Your task to perform on an android device: Open Maps and search for coffee Image 0: 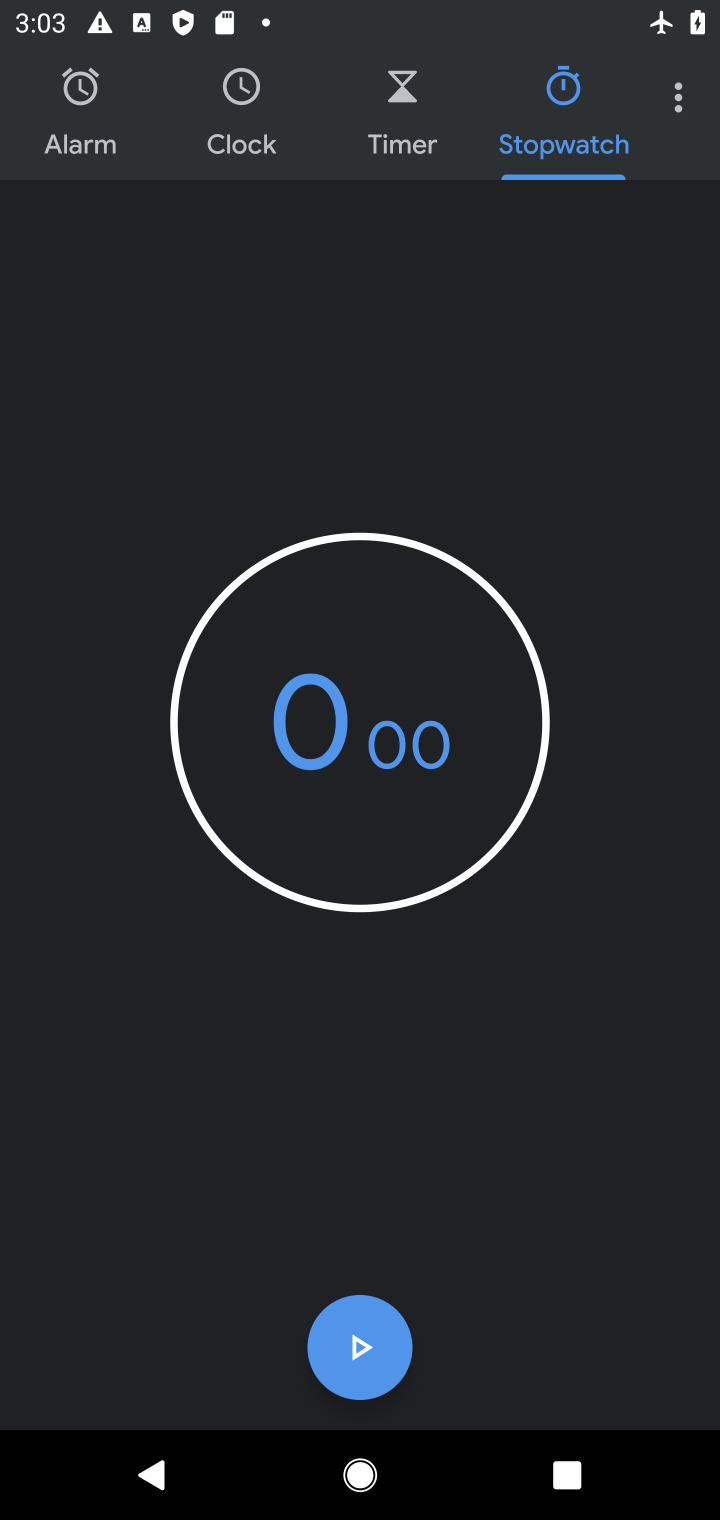
Step 0: press home button
Your task to perform on an android device: Open Maps and search for coffee Image 1: 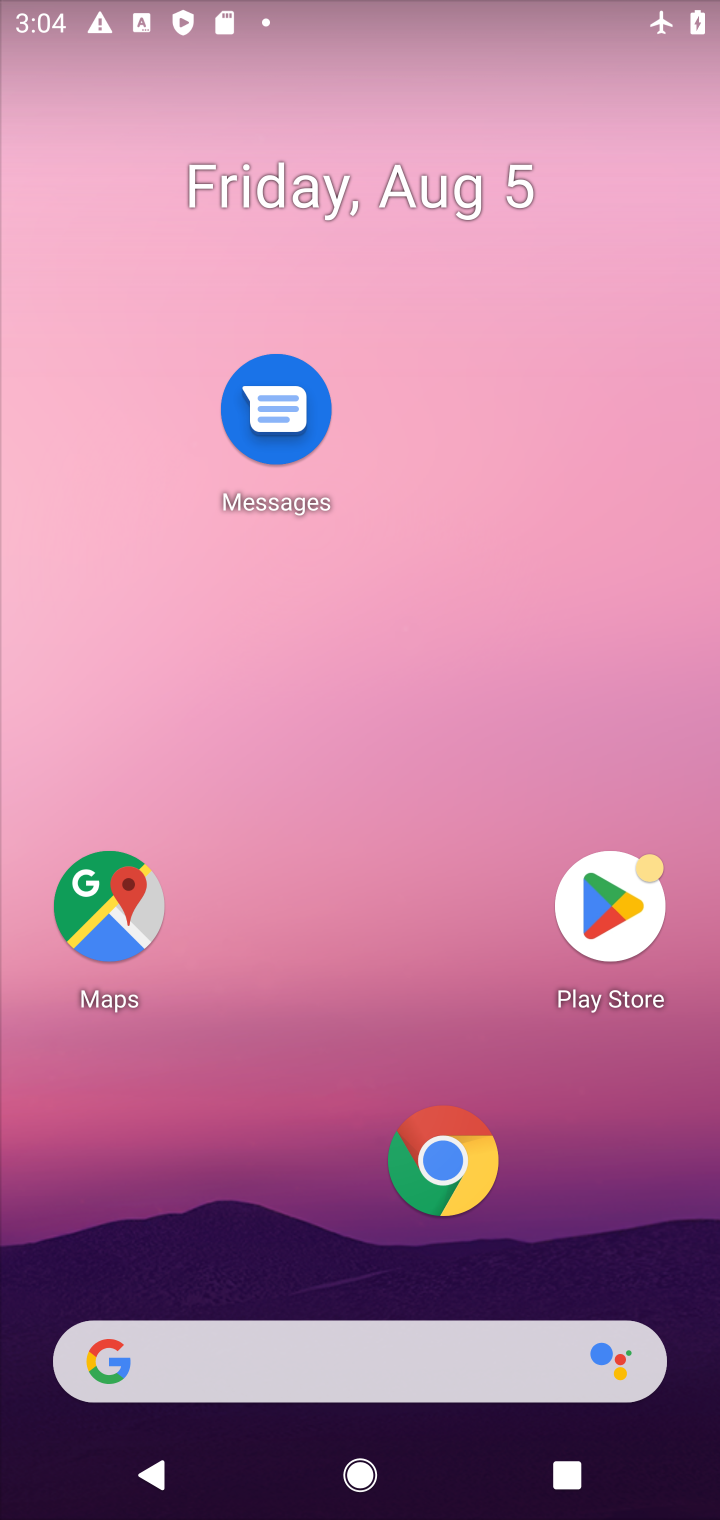
Step 1: click (154, 905)
Your task to perform on an android device: Open Maps and search for coffee Image 2: 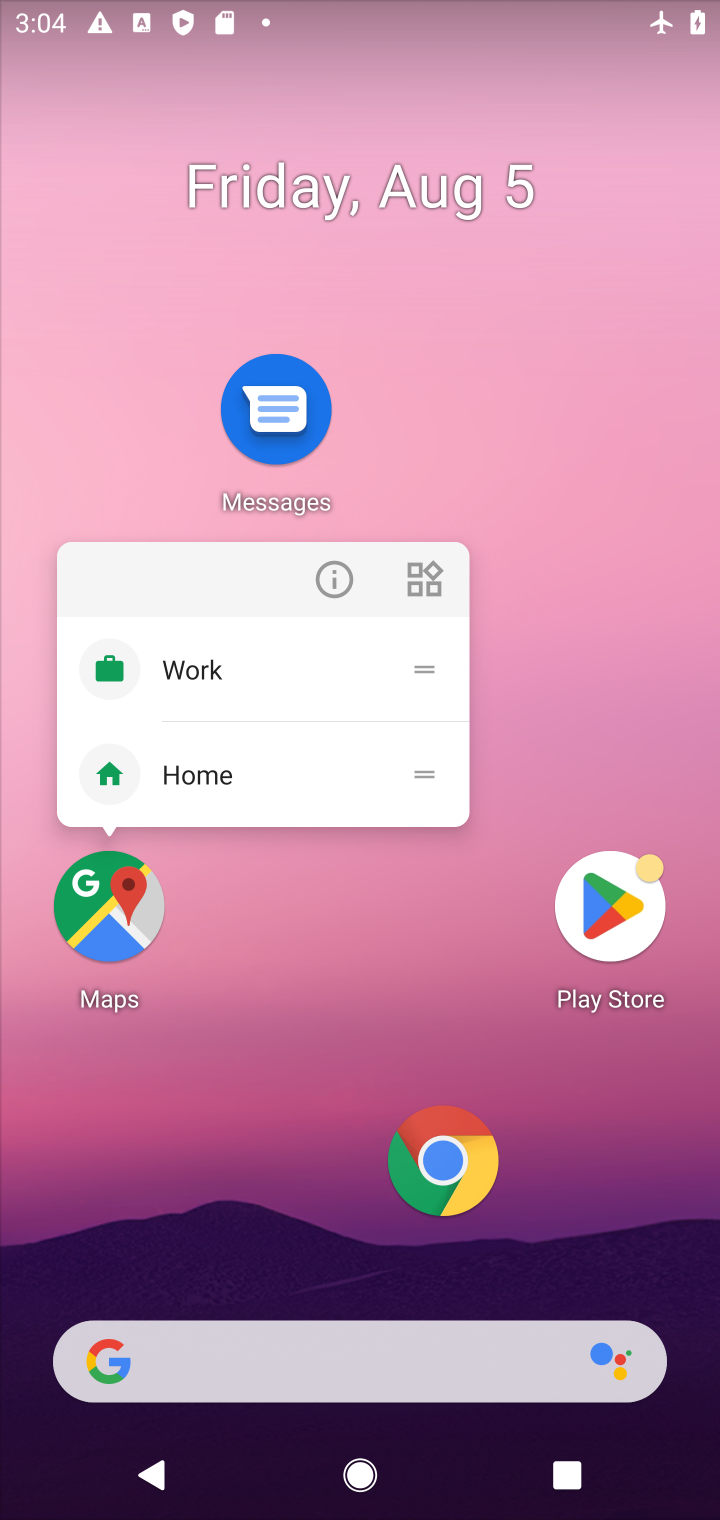
Step 2: click (93, 941)
Your task to perform on an android device: Open Maps and search for coffee Image 3: 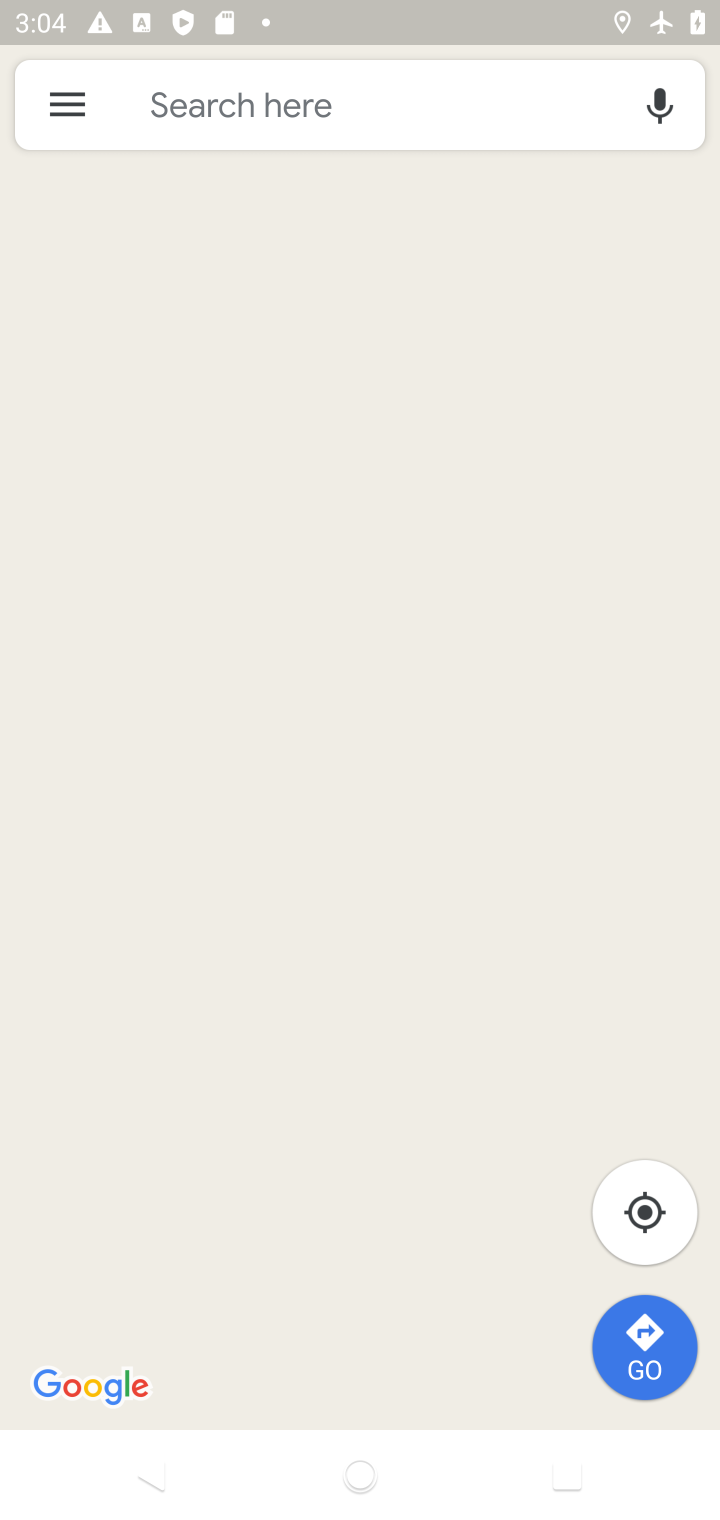
Step 3: click (370, 130)
Your task to perform on an android device: Open Maps and search for coffee Image 4: 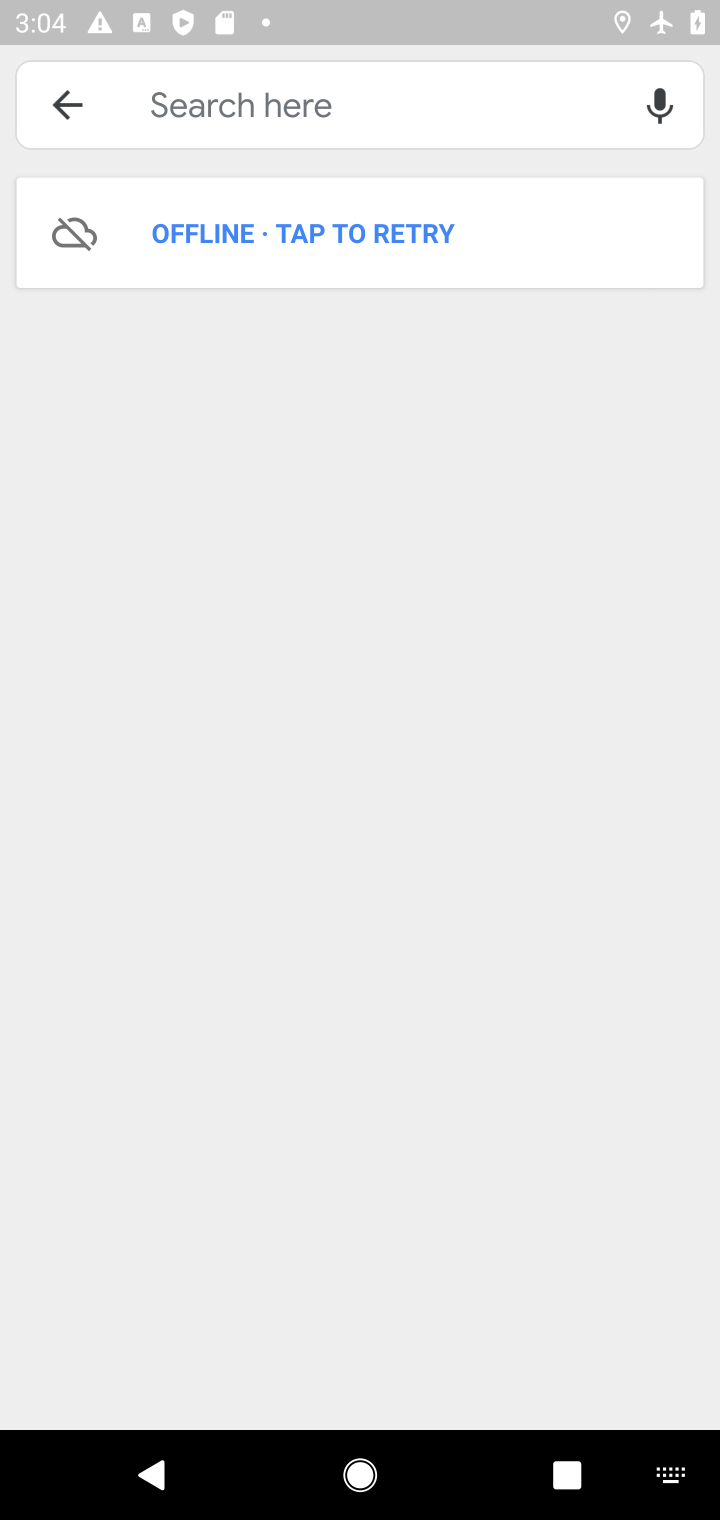
Step 4: type "coffee"
Your task to perform on an android device: Open Maps and search for coffee Image 5: 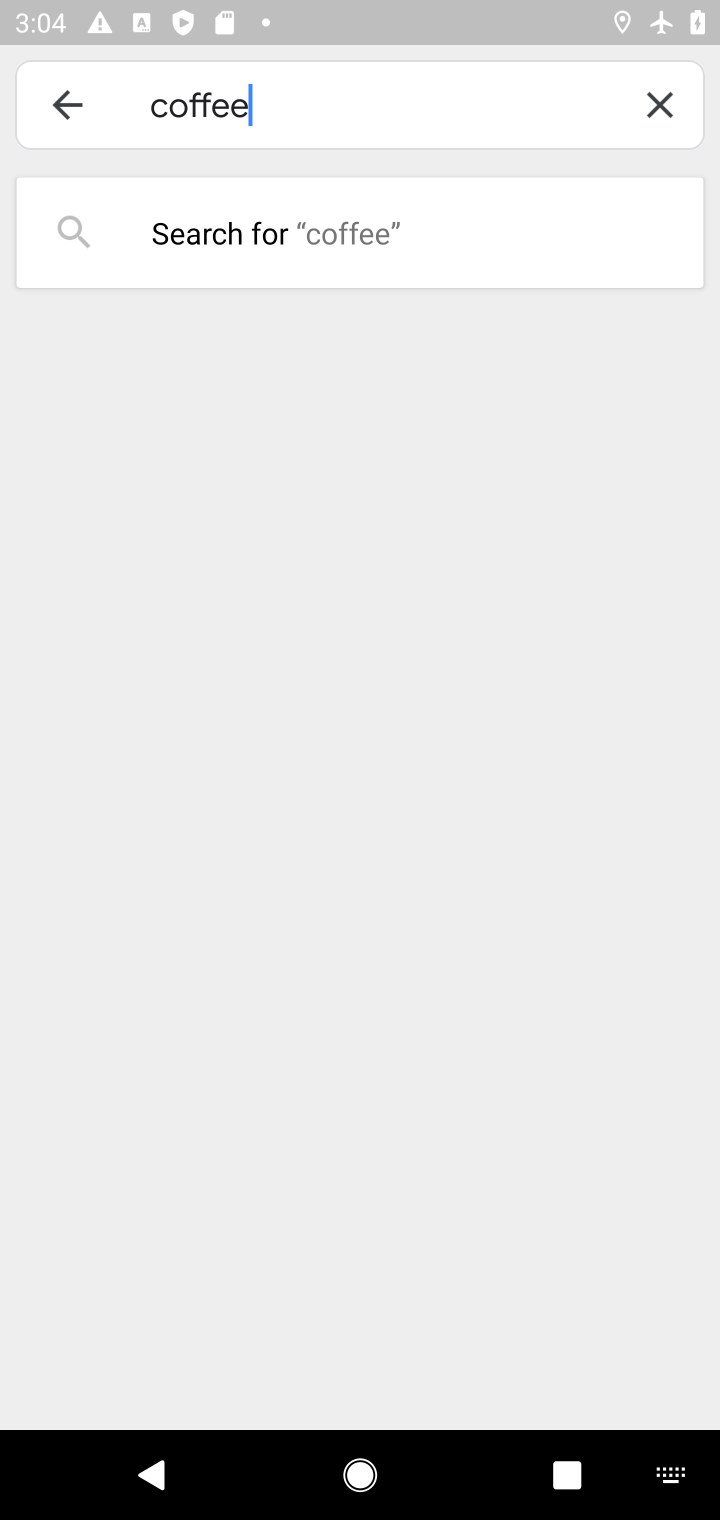
Step 5: task complete